Your task to perform on an android device: delete the emails in spam in the gmail app Image 0: 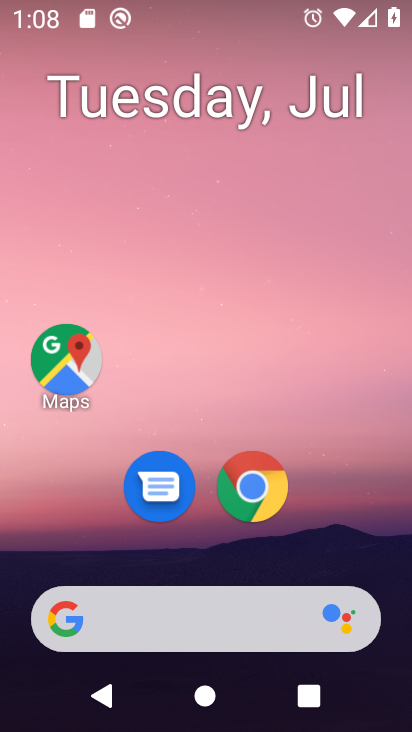
Step 0: drag from (368, 542) to (383, 178)
Your task to perform on an android device: delete the emails in spam in the gmail app Image 1: 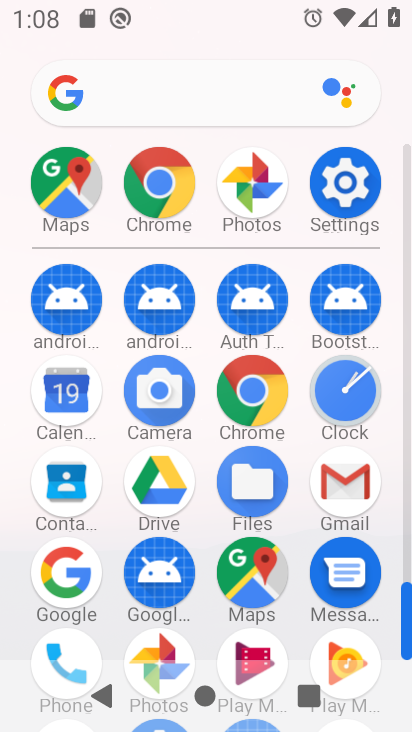
Step 1: click (347, 488)
Your task to perform on an android device: delete the emails in spam in the gmail app Image 2: 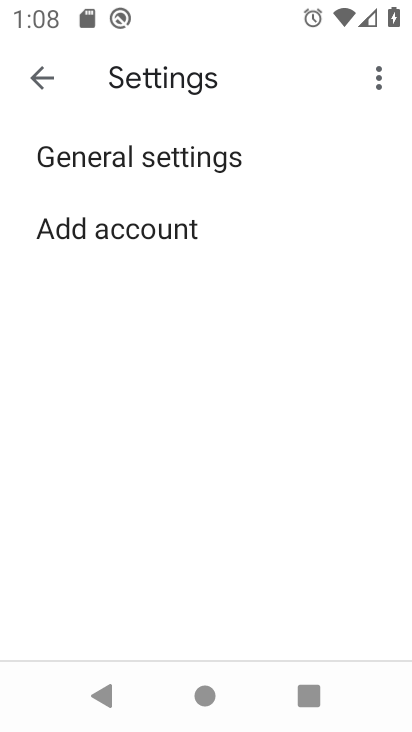
Step 2: press back button
Your task to perform on an android device: delete the emails in spam in the gmail app Image 3: 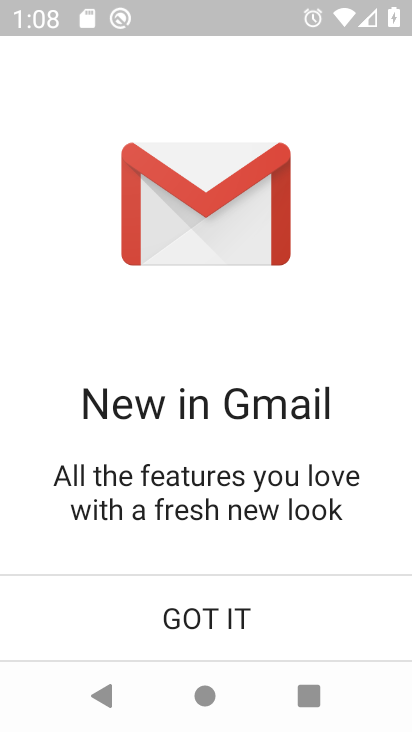
Step 3: click (229, 615)
Your task to perform on an android device: delete the emails in spam in the gmail app Image 4: 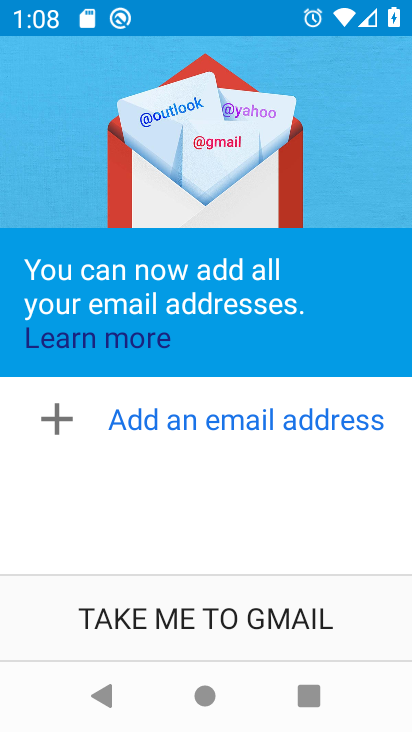
Step 4: click (245, 617)
Your task to perform on an android device: delete the emails in spam in the gmail app Image 5: 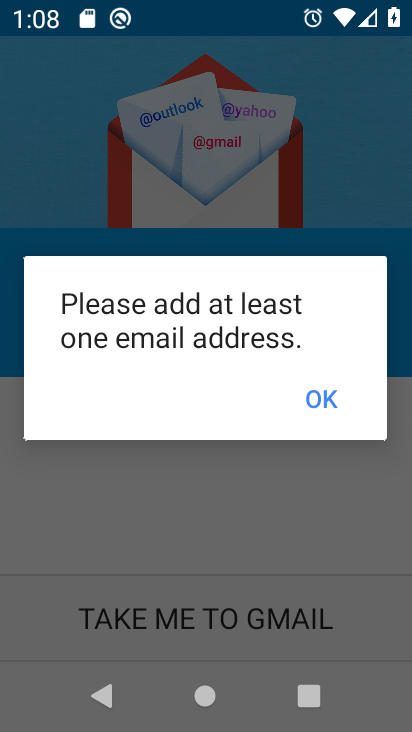
Step 5: task complete